Your task to perform on an android device: allow notifications from all sites in the chrome app Image 0: 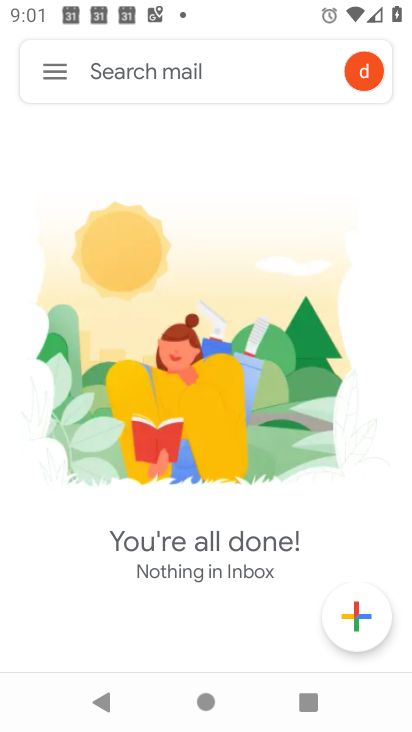
Step 0: press home button
Your task to perform on an android device: allow notifications from all sites in the chrome app Image 1: 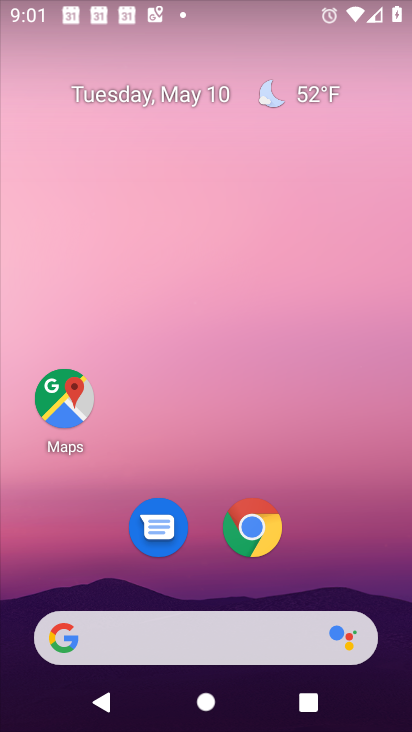
Step 1: click (264, 530)
Your task to perform on an android device: allow notifications from all sites in the chrome app Image 2: 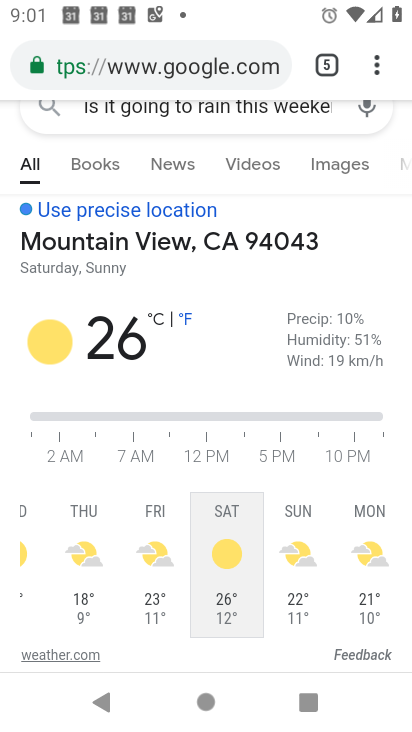
Step 2: click (376, 68)
Your task to perform on an android device: allow notifications from all sites in the chrome app Image 3: 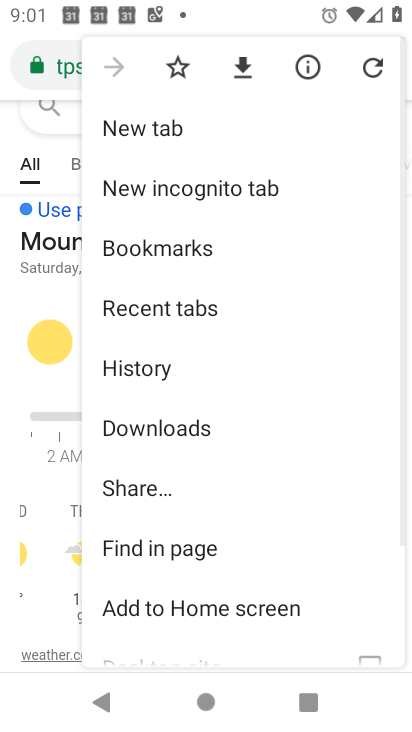
Step 3: drag from (168, 590) to (163, 278)
Your task to perform on an android device: allow notifications from all sites in the chrome app Image 4: 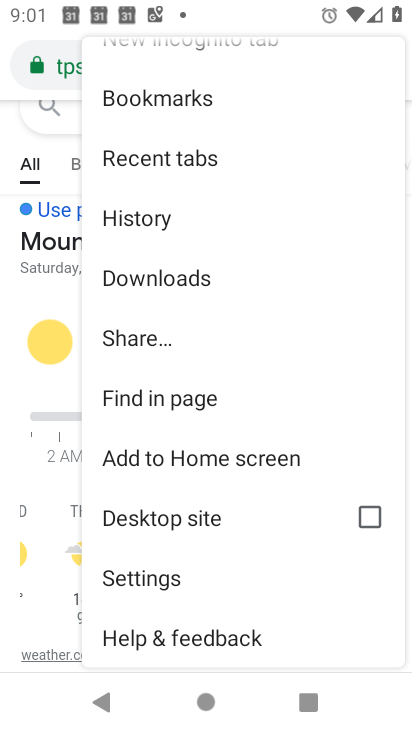
Step 4: click (152, 581)
Your task to perform on an android device: allow notifications from all sites in the chrome app Image 5: 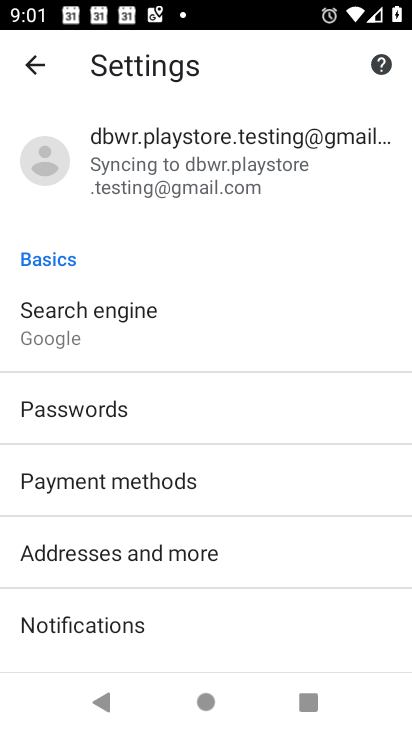
Step 5: click (100, 620)
Your task to perform on an android device: allow notifications from all sites in the chrome app Image 6: 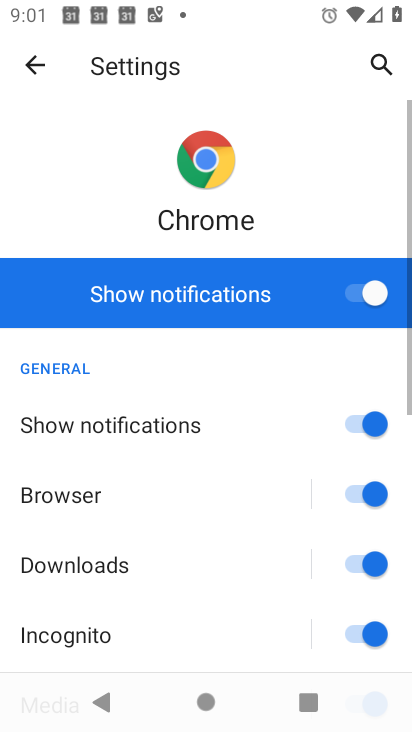
Step 6: task complete